Your task to perform on an android device: Search for seafood restaurants on Google Maps Image 0: 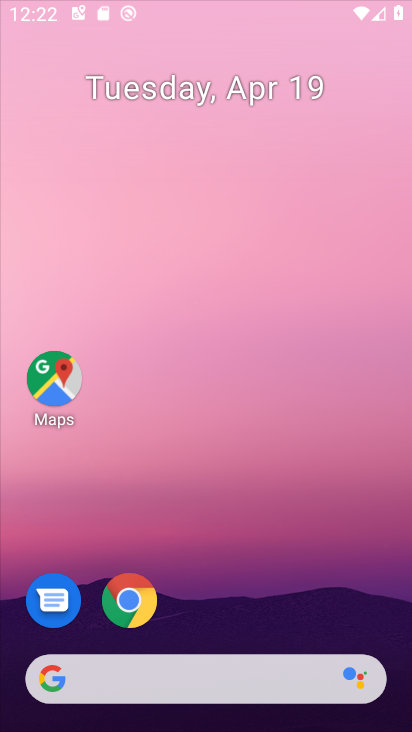
Step 0: click (185, 119)
Your task to perform on an android device: Search for seafood restaurants on Google Maps Image 1: 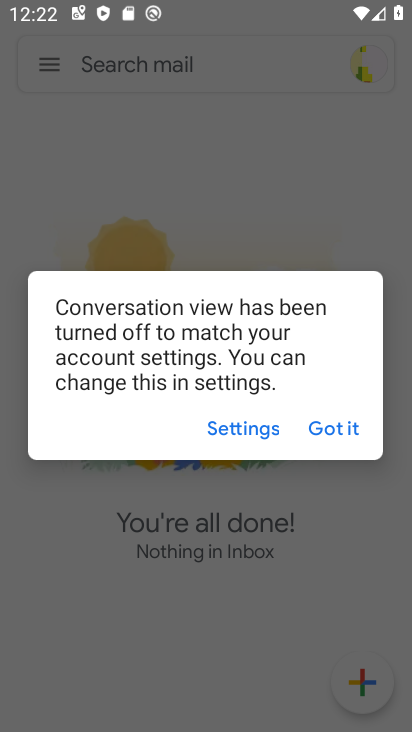
Step 1: press home button
Your task to perform on an android device: Search for seafood restaurants on Google Maps Image 2: 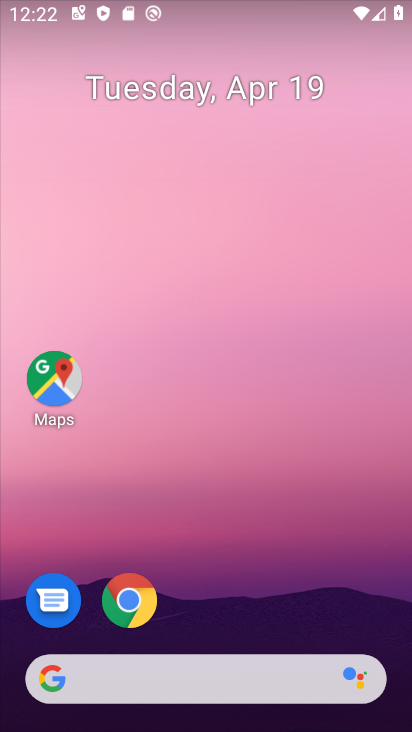
Step 2: drag from (311, 556) to (254, 24)
Your task to perform on an android device: Search for seafood restaurants on Google Maps Image 3: 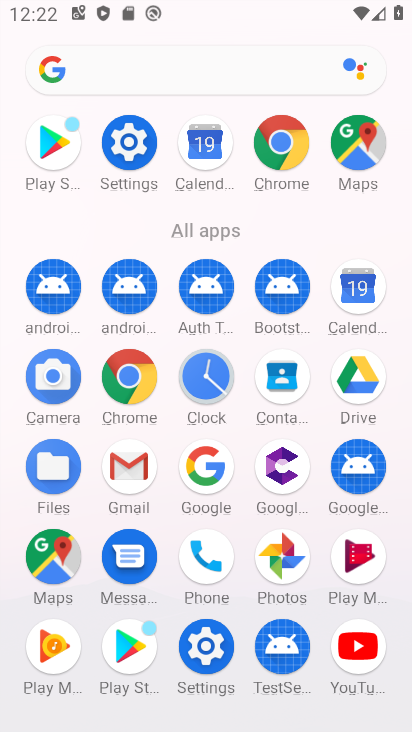
Step 3: click (213, 370)
Your task to perform on an android device: Search for seafood restaurants on Google Maps Image 4: 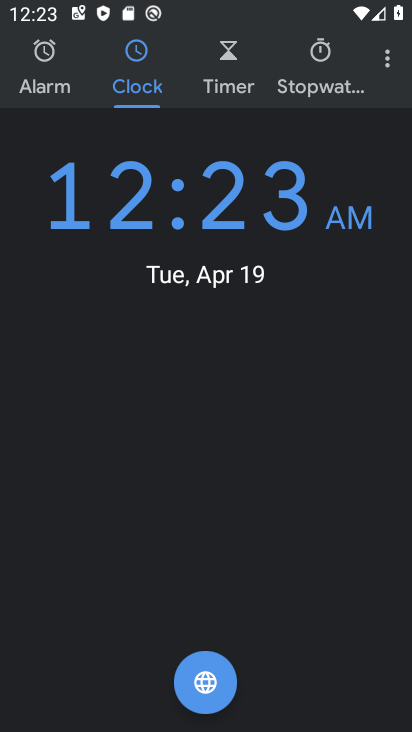
Step 4: press back button
Your task to perform on an android device: Search for seafood restaurants on Google Maps Image 5: 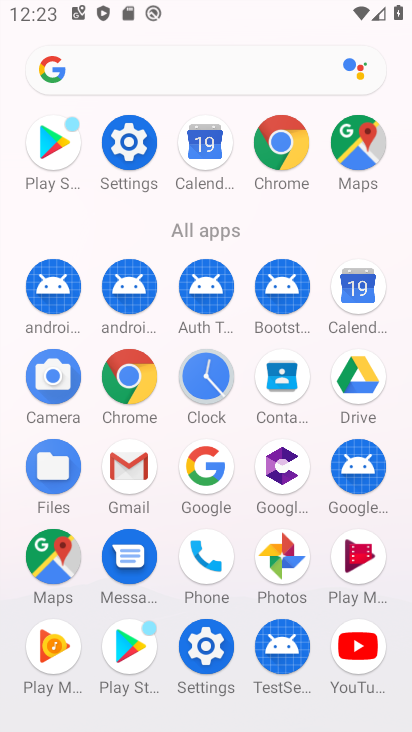
Step 5: click (343, 139)
Your task to perform on an android device: Search for seafood restaurants on Google Maps Image 6: 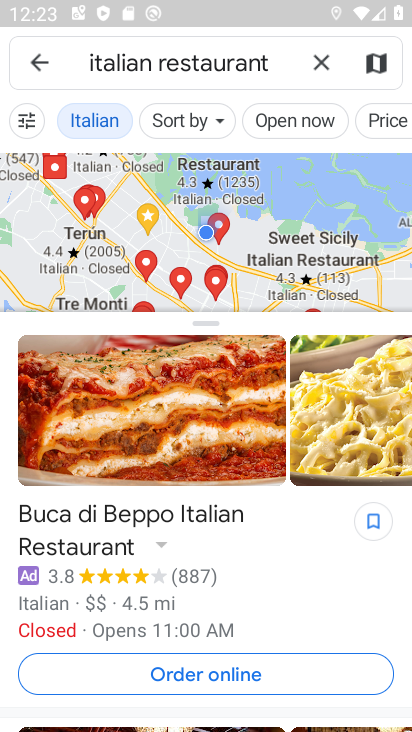
Step 6: click (323, 69)
Your task to perform on an android device: Search for seafood restaurants on Google Maps Image 7: 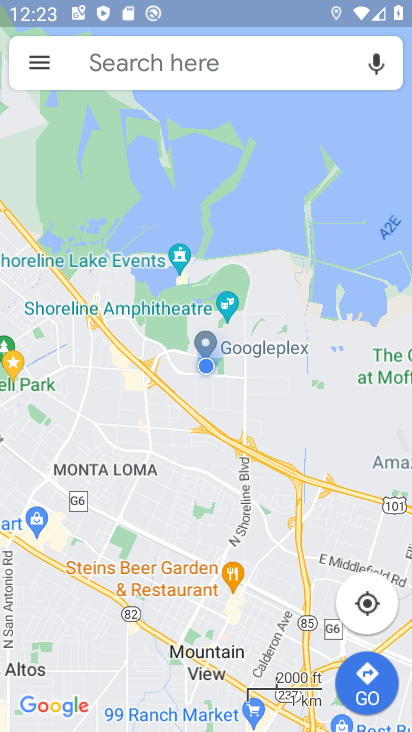
Step 7: click (258, 68)
Your task to perform on an android device: Search for seafood restaurants on Google Maps Image 8: 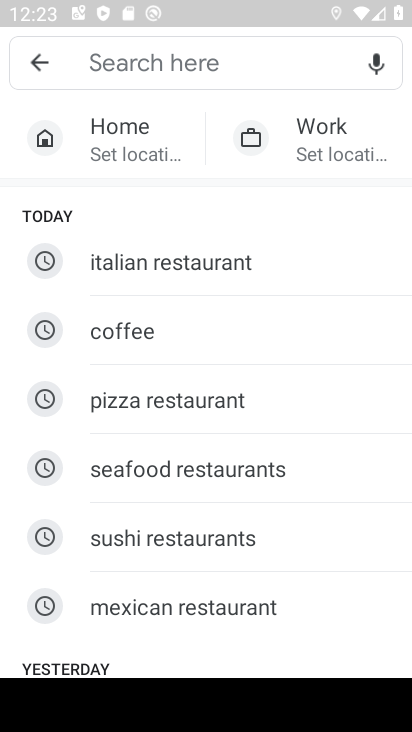
Step 8: click (236, 478)
Your task to perform on an android device: Search for seafood restaurants on Google Maps Image 9: 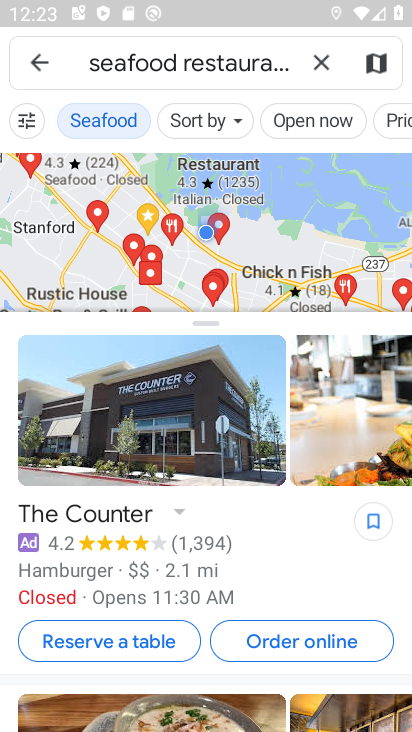
Step 9: task complete